Your task to perform on an android device: toggle show notifications on the lock screen Image 0: 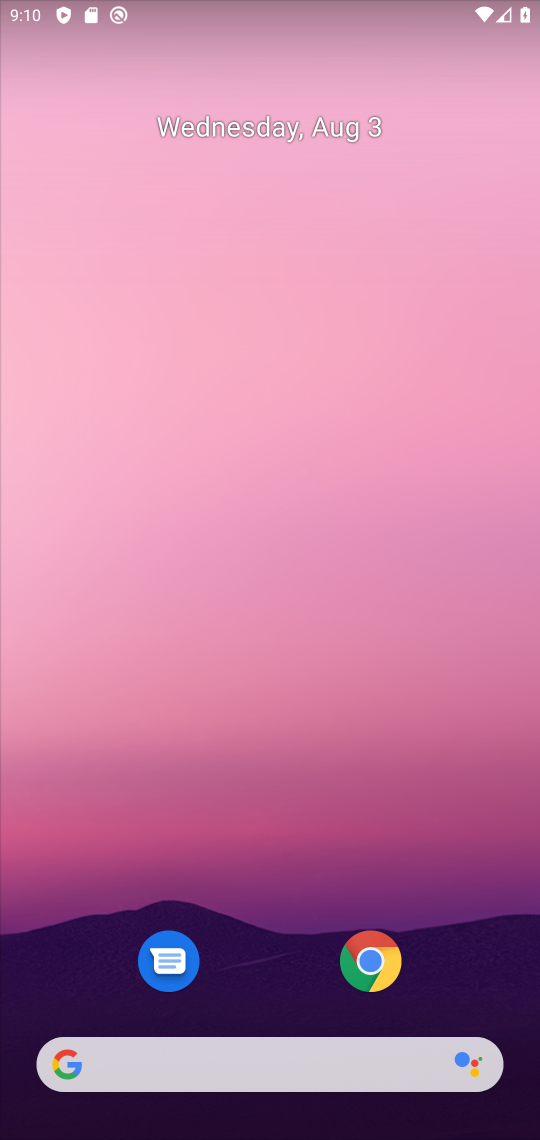
Step 0: drag from (291, 1047) to (208, 217)
Your task to perform on an android device: toggle show notifications on the lock screen Image 1: 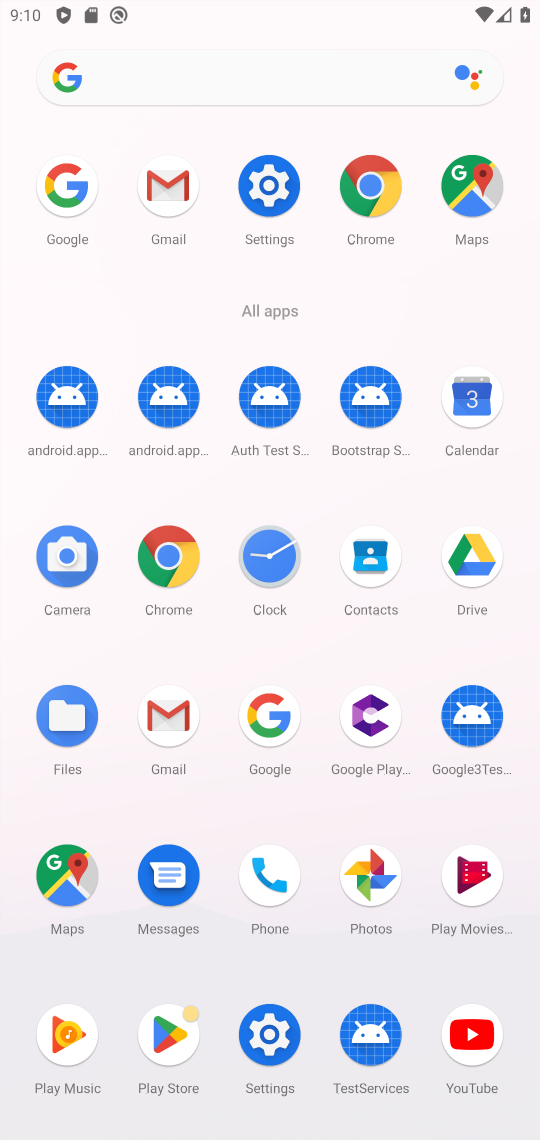
Step 1: click (261, 1024)
Your task to perform on an android device: toggle show notifications on the lock screen Image 2: 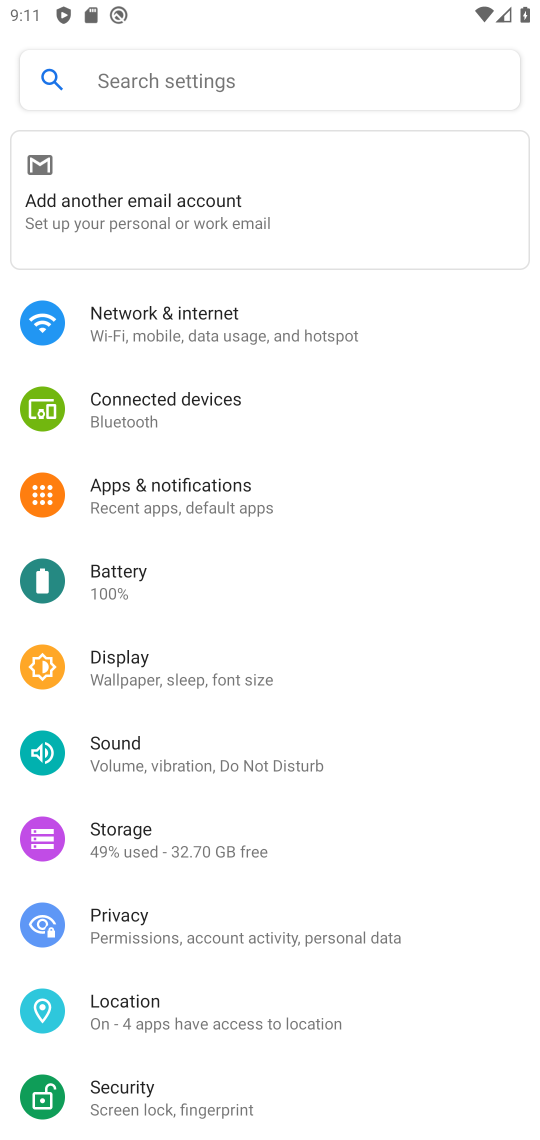
Step 2: click (159, 503)
Your task to perform on an android device: toggle show notifications on the lock screen Image 3: 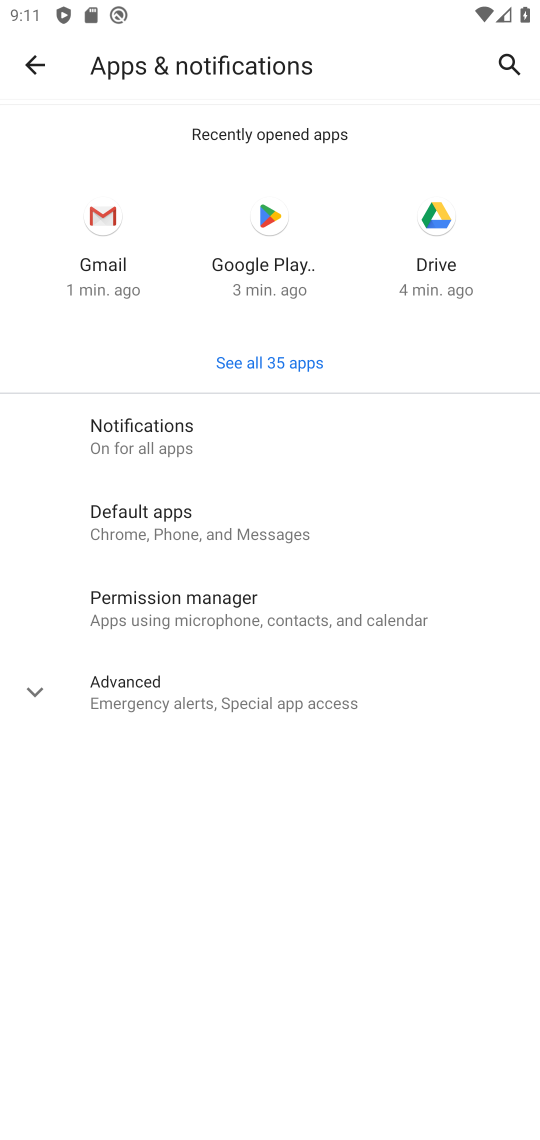
Step 3: click (107, 448)
Your task to perform on an android device: toggle show notifications on the lock screen Image 4: 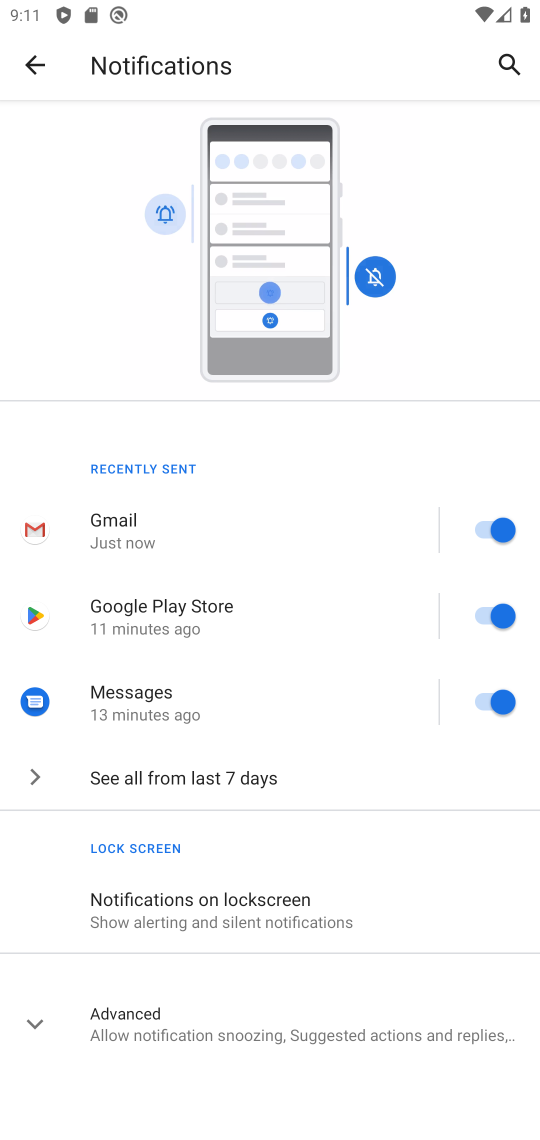
Step 4: click (162, 931)
Your task to perform on an android device: toggle show notifications on the lock screen Image 5: 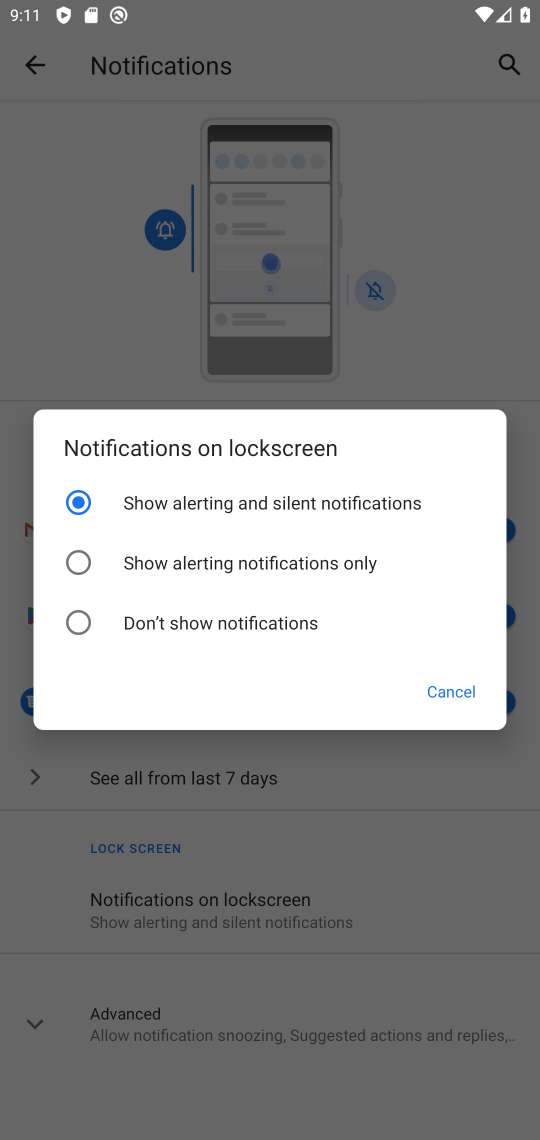
Step 5: click (129, 574)
Your task to perform on an android device: toggle show notifications on the lock screen Image 6: 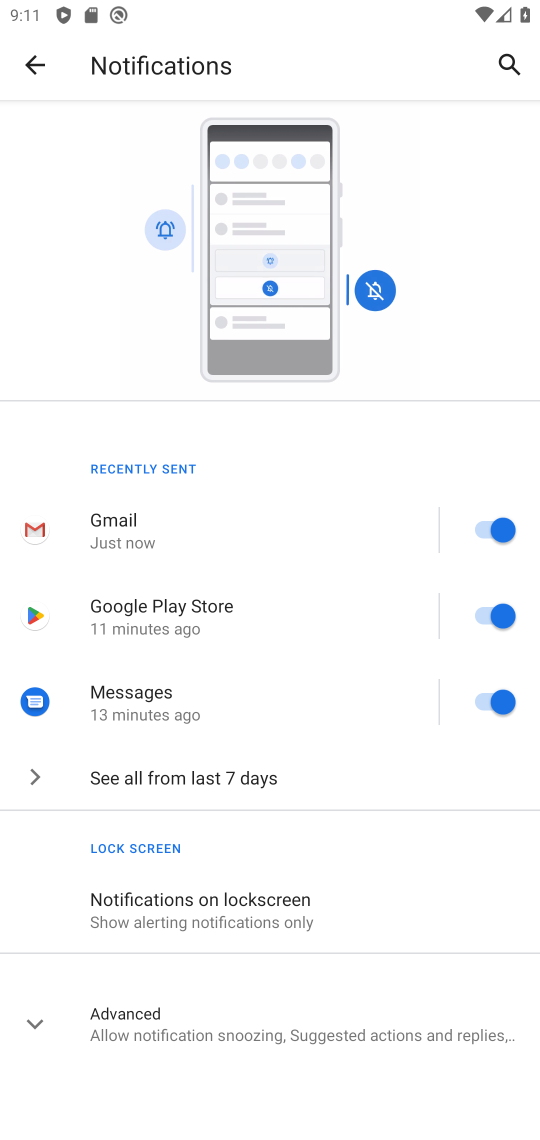
Step 6: task complete